Your task to perform on an android device: star an email in the gmail app Image 0: 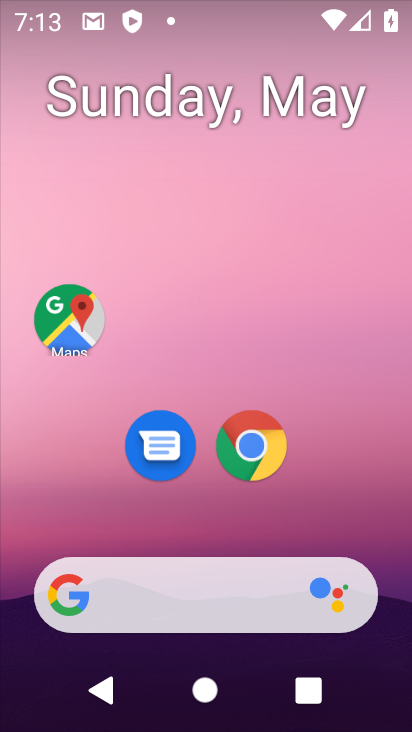
Step 0: drag from (328, 481) to (238, 24)
Your task to perform on an android device: star an email in the gmail app Image 1: 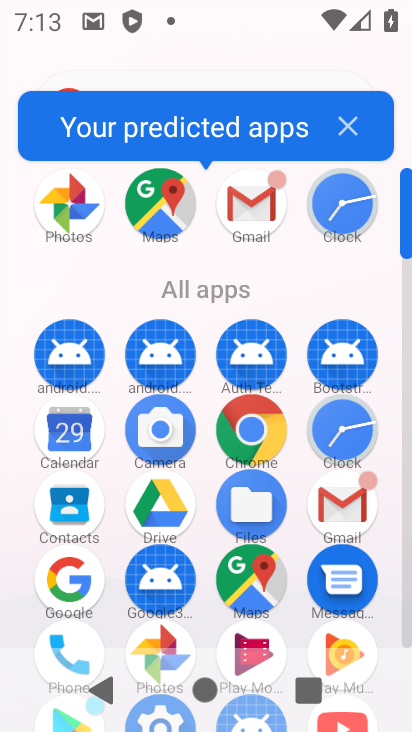
Step 1: click (253, 198)
Your task to perform on an android device: star an email in the gmail app Image 2: 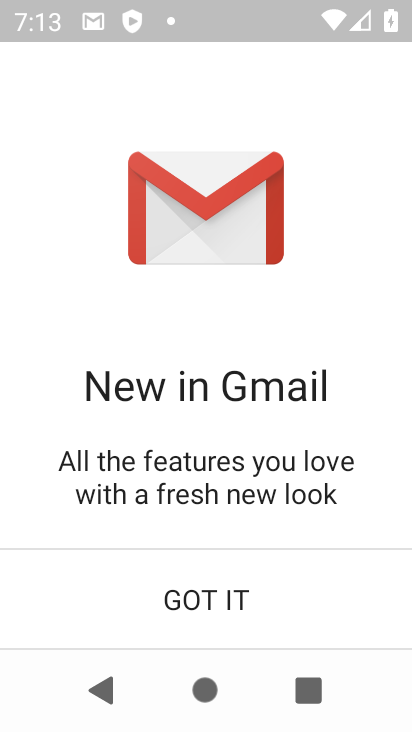
Step 2: click (190, 595)
Your task to perform on an android device: star an email in the gmail app Image 3: 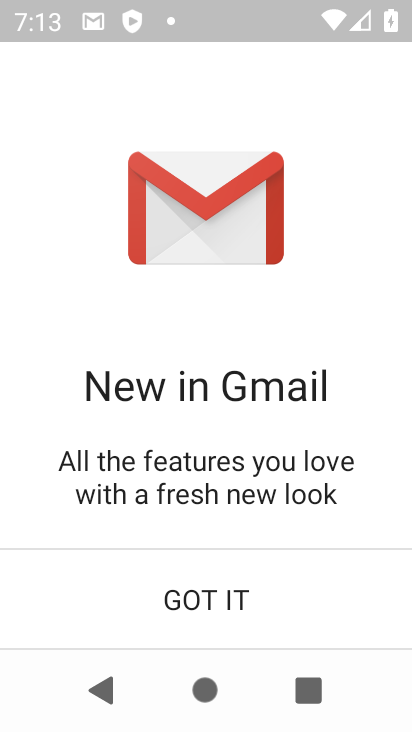
Step 3: click (190, 595)
Your task to perform on an android device: star an email in the gmail app Image 4: 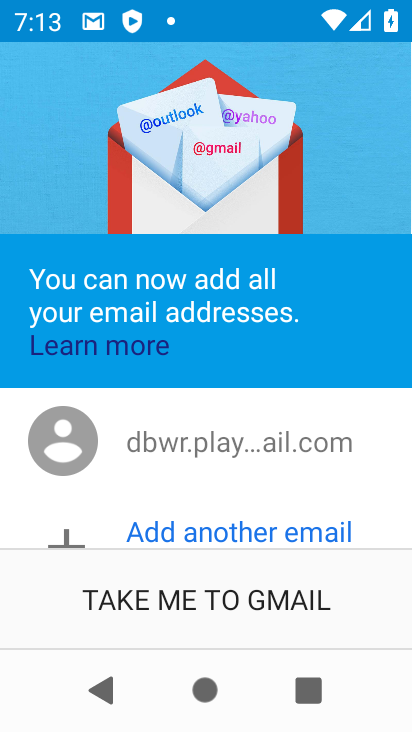
Step 4: click (223, 597)
Your task to perform on an android device: star an email in the gmail app Image 5: 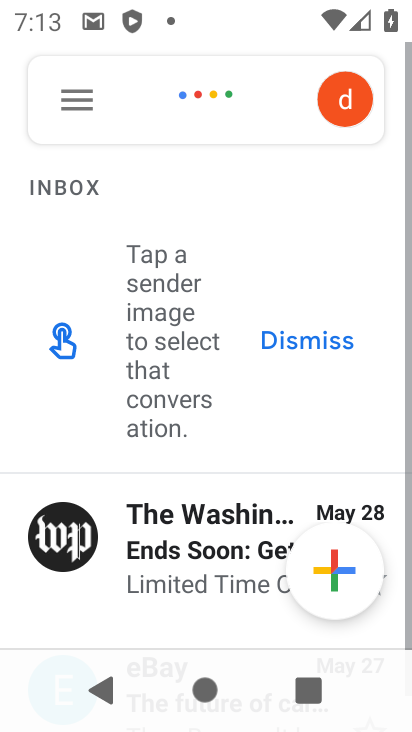
Step 5: click (184, 545)
Your task to perform on an android device: star an email in the gmail app Image 6: 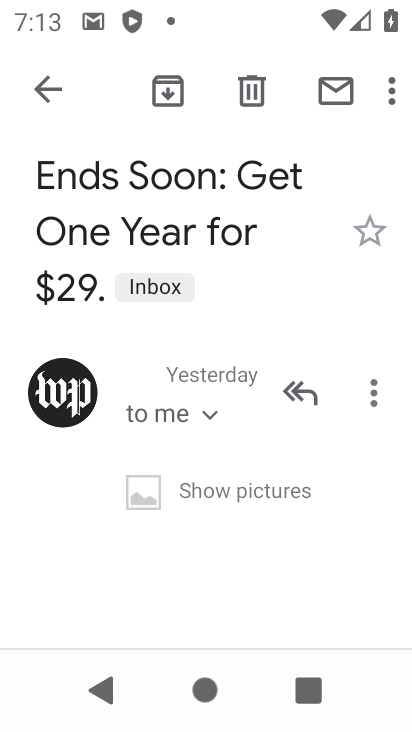
Step 6: click (390, 89)
Your task to perform on an android device: star an email in the gmail app Image 7: 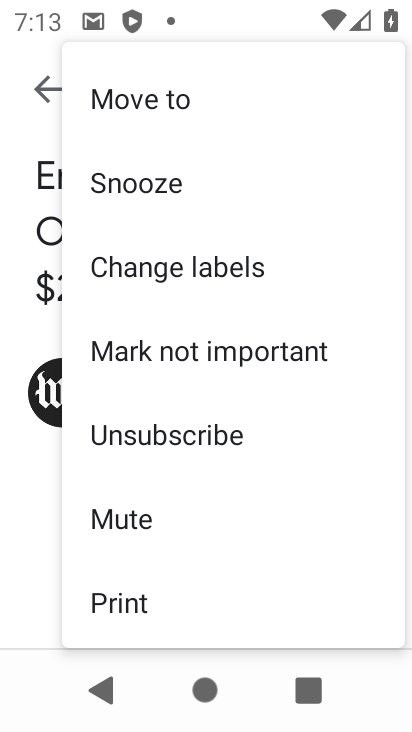
Step 7: click (15, 539)
Your task to perform on an android device: star an email in the gmail app Image 8: 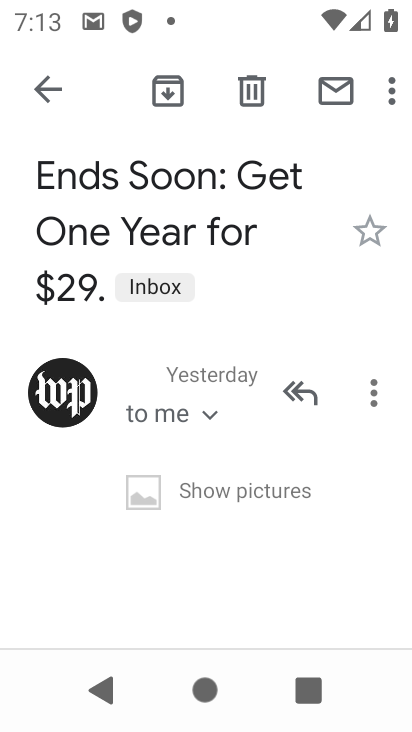
Step 8: click (370, 227)
Your task to perform on an android device: star an email in the gmail app Image 9: 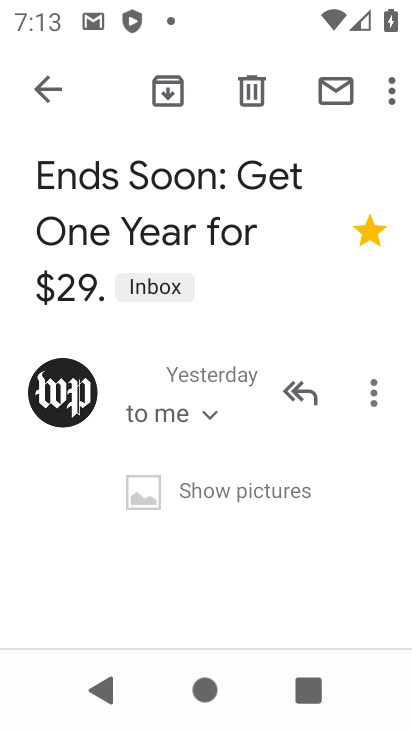
Step 9: task complete